Your task to perform on an android device: What is the speed of a skateboard? Image 0: 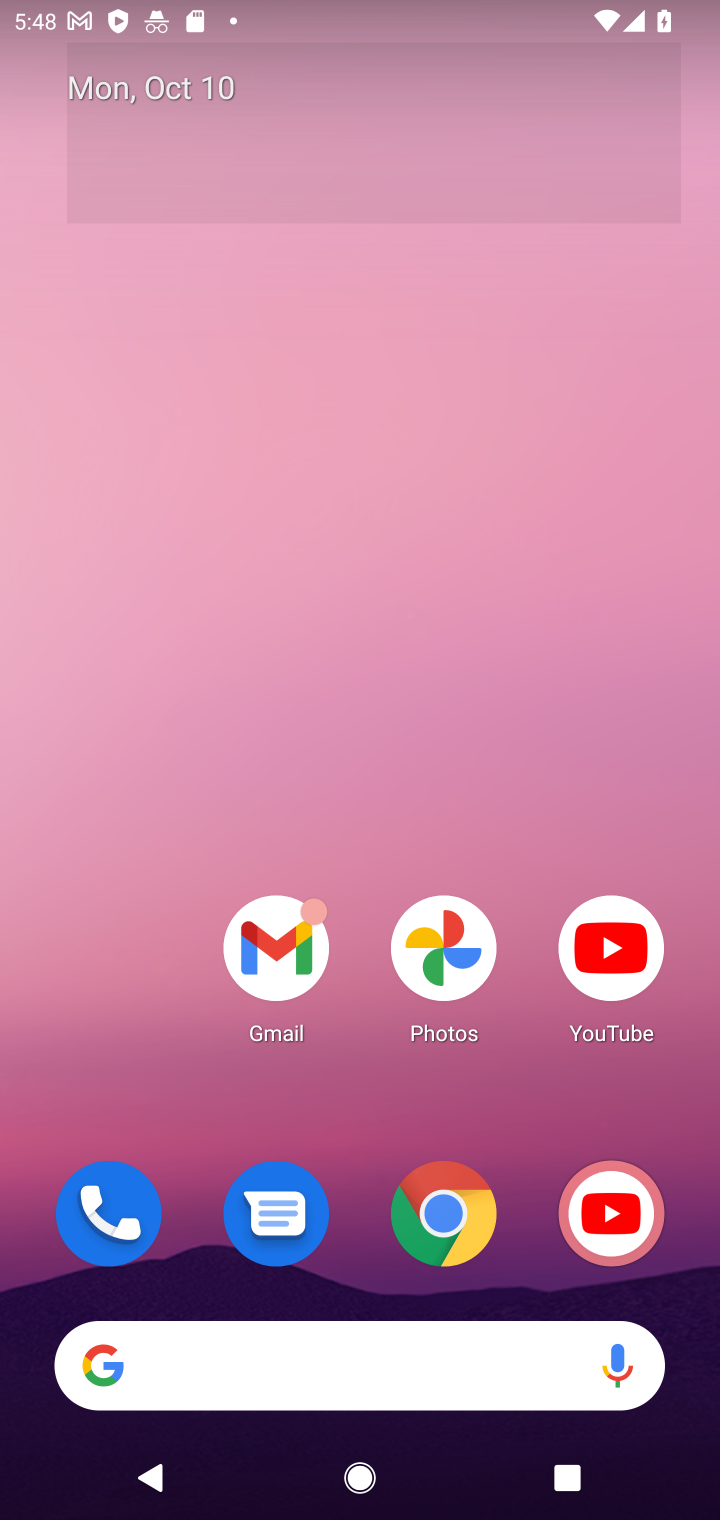
Step 0: drag from (194, 1282) to (301, 108)
Your task to perform on an android device: What is the speed of a skateboard? Image 1: 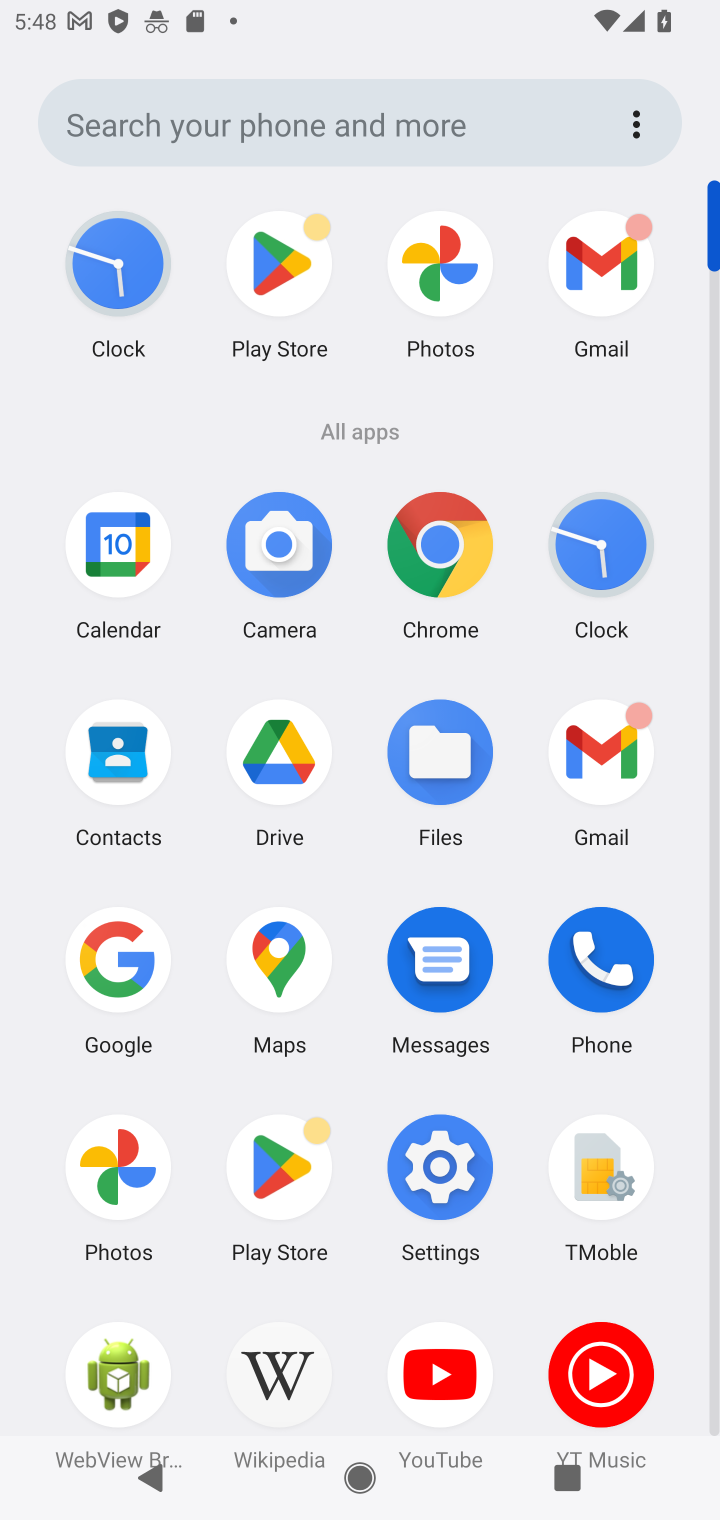
Step 1: click (115, 988)
Your task to perform on an android device: What is the speed of a skateboard? Image 2: 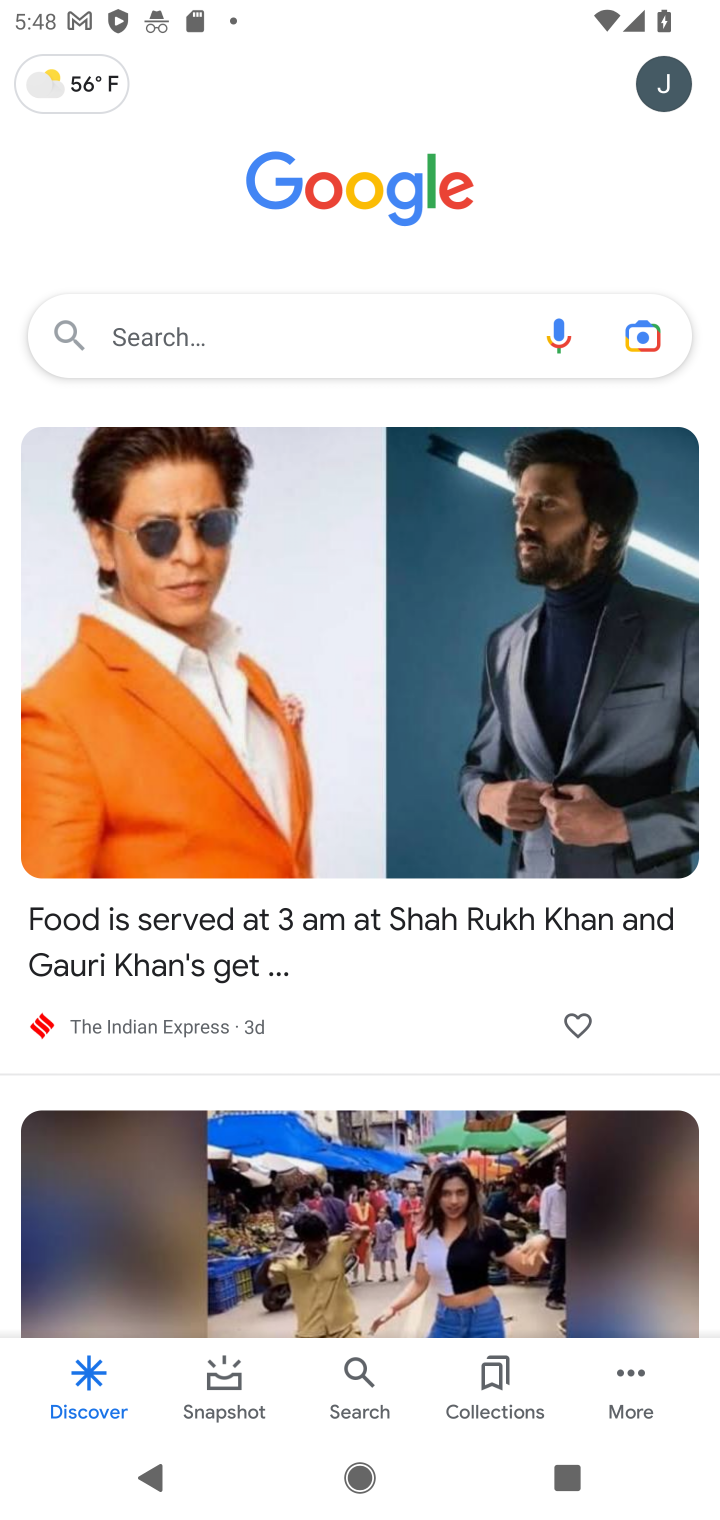
Step 2: click (271, 308)
Your task to perform on an android device: What is the speed of a skateboard? Image 3: 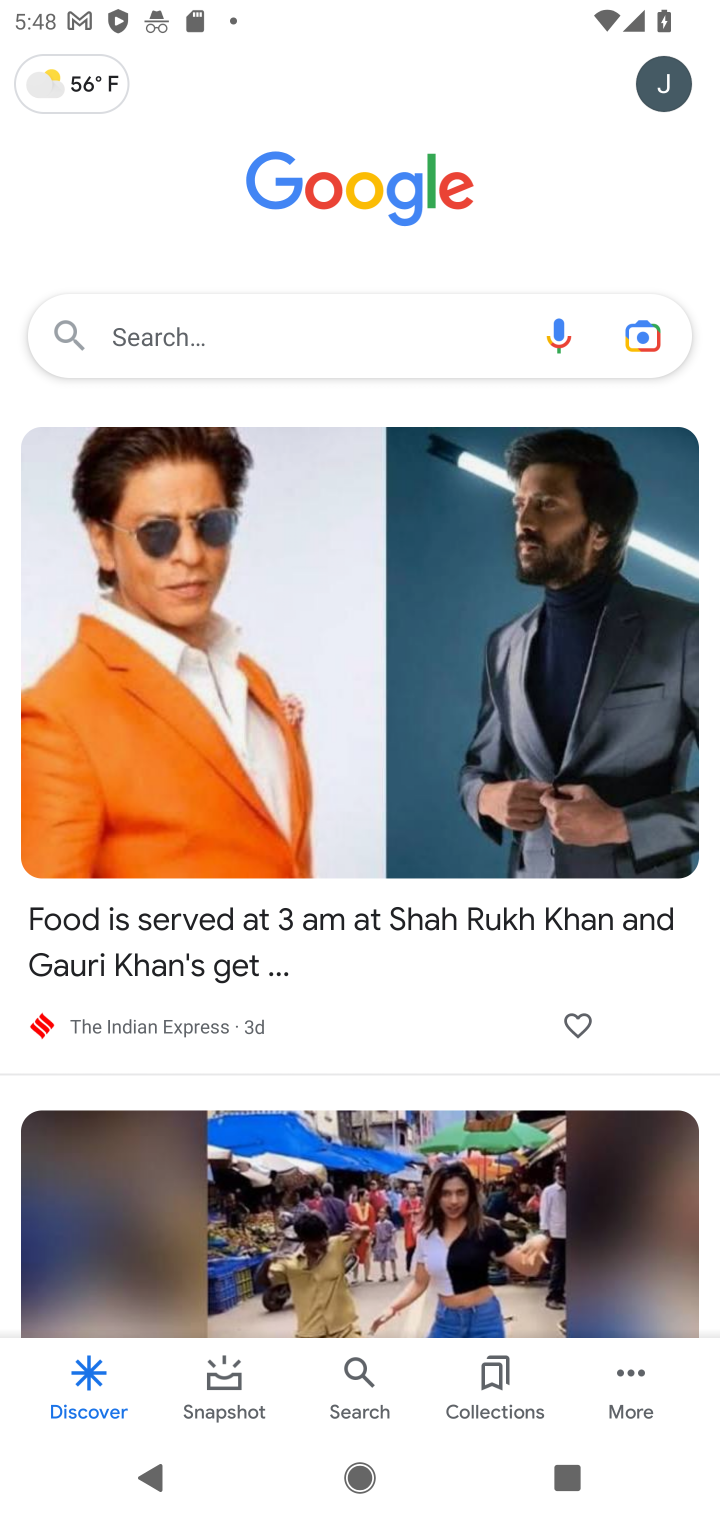
Step 3: type "What is the speed of a skateboard?"
Your task to perform on an android device: What is the speed of a skateboard? Image 4: 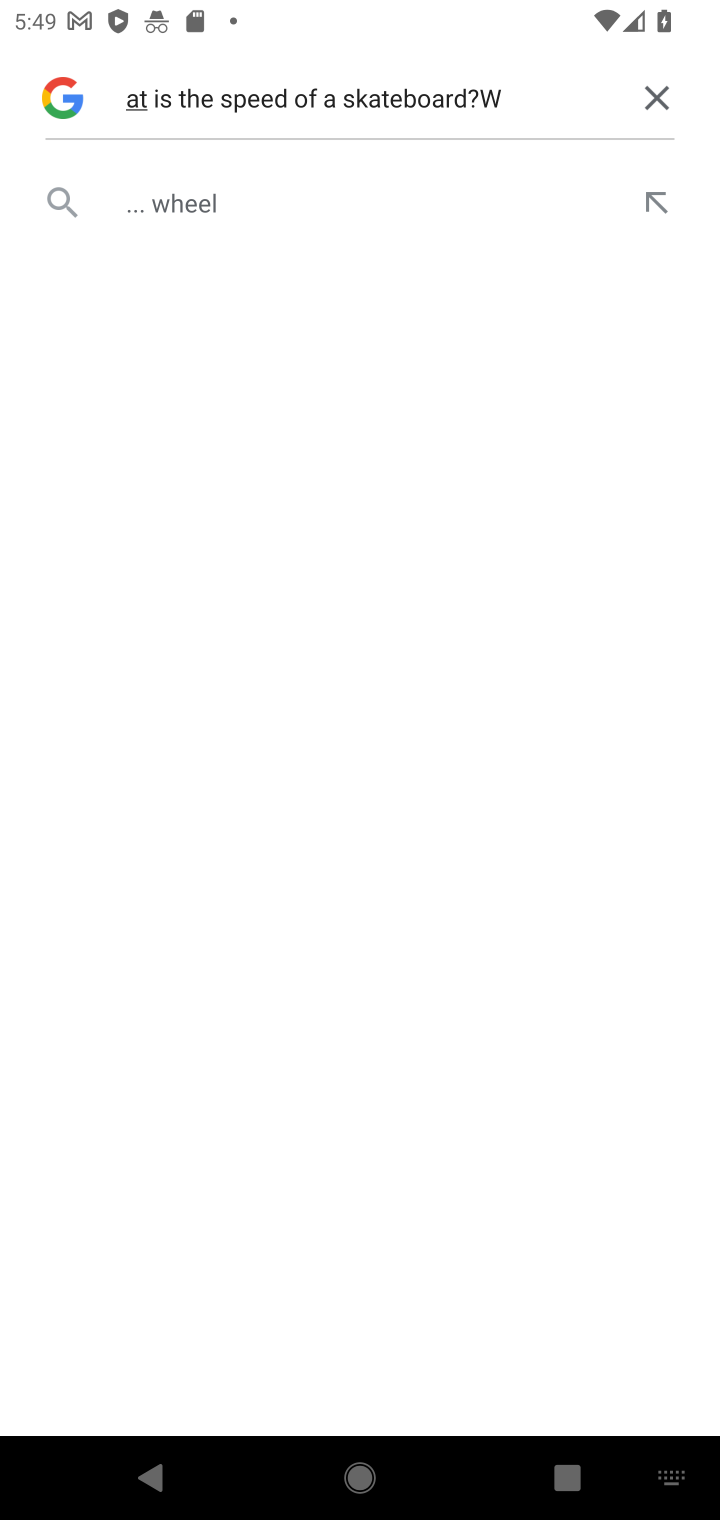
Step 4: click (672, 87)
Your task to perform on an android device: What is the speed of a skateboard? Image 5: 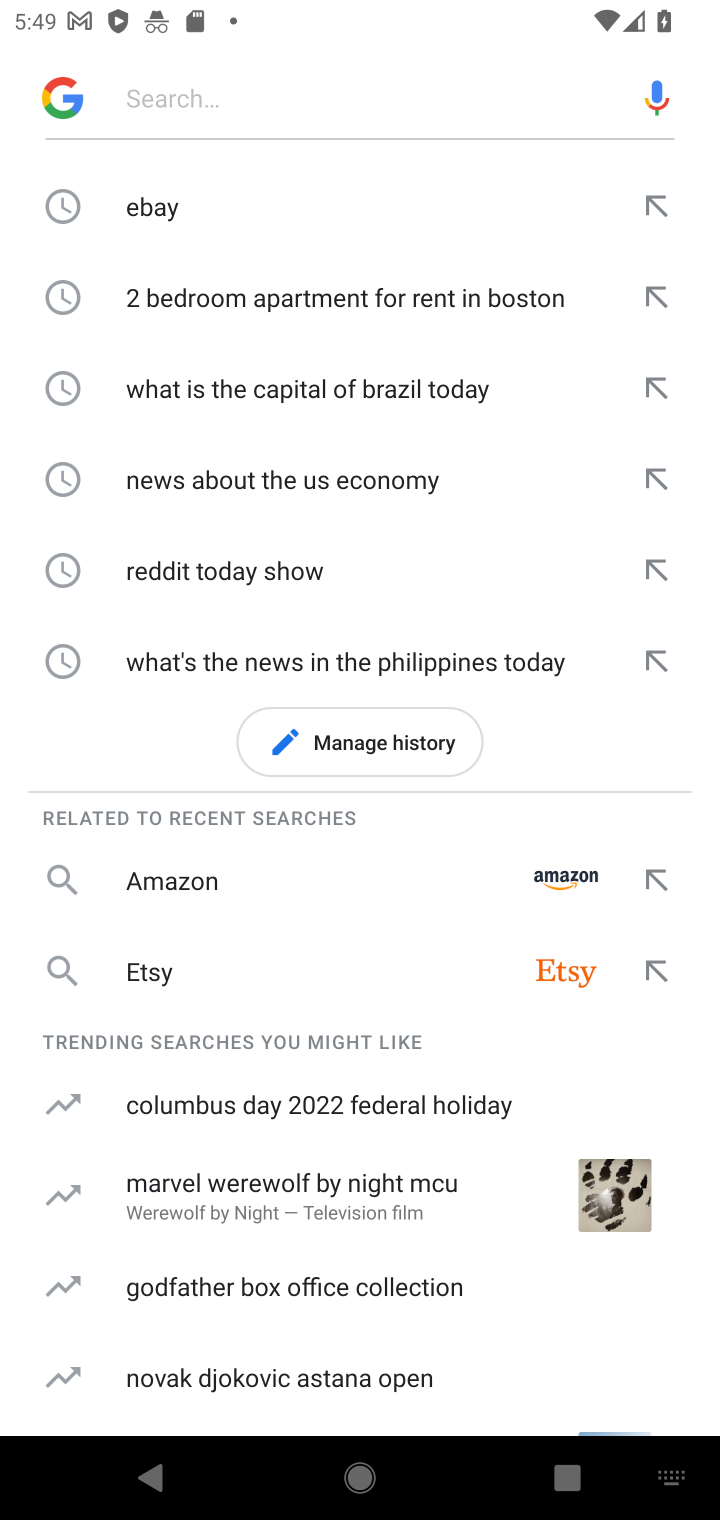
Step 5: click (199, 102)
Your task to perform on an android device: What is the speed of a skateboard? Image 6: 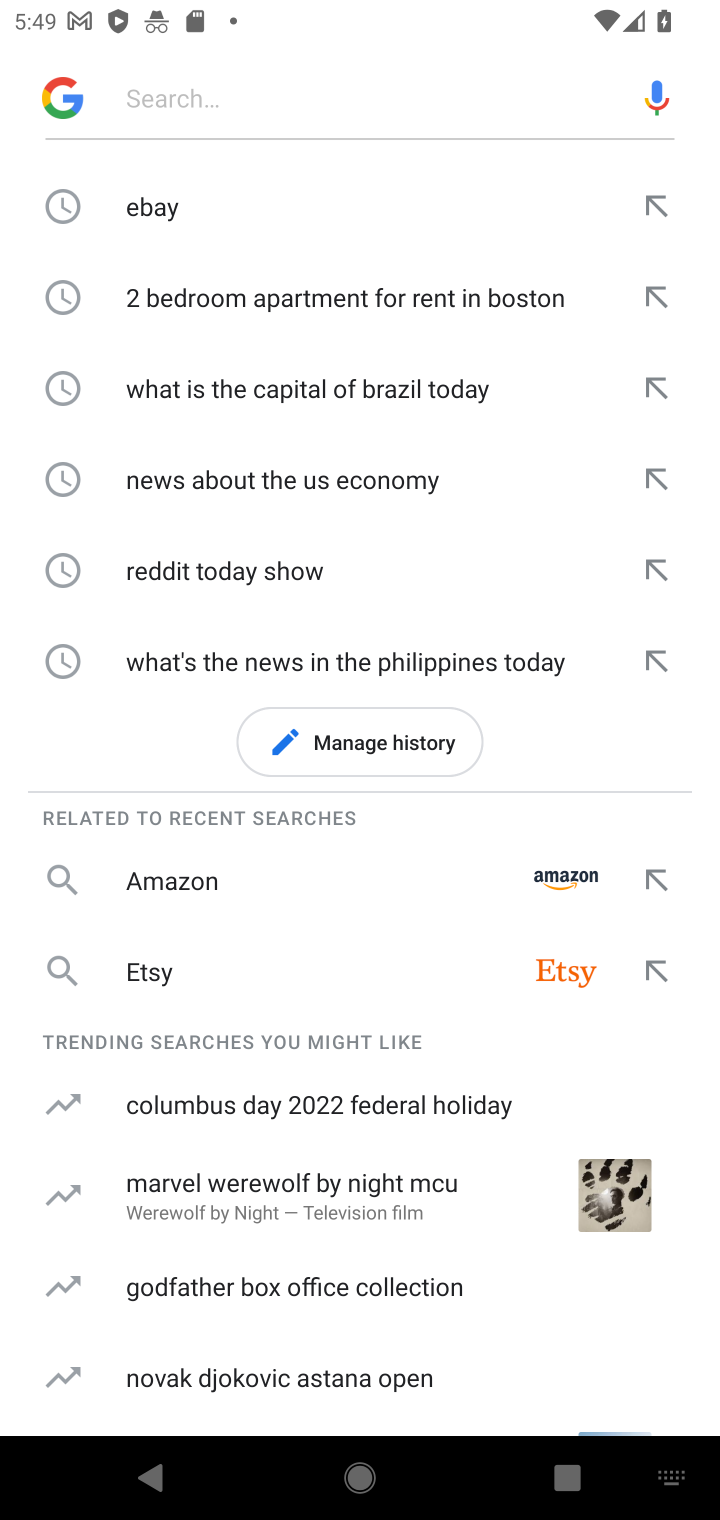
Step 6: type "What is the speed of a skateboard?"
Your task to perform on an android device: What is the speed of a skateboard? Image 7: 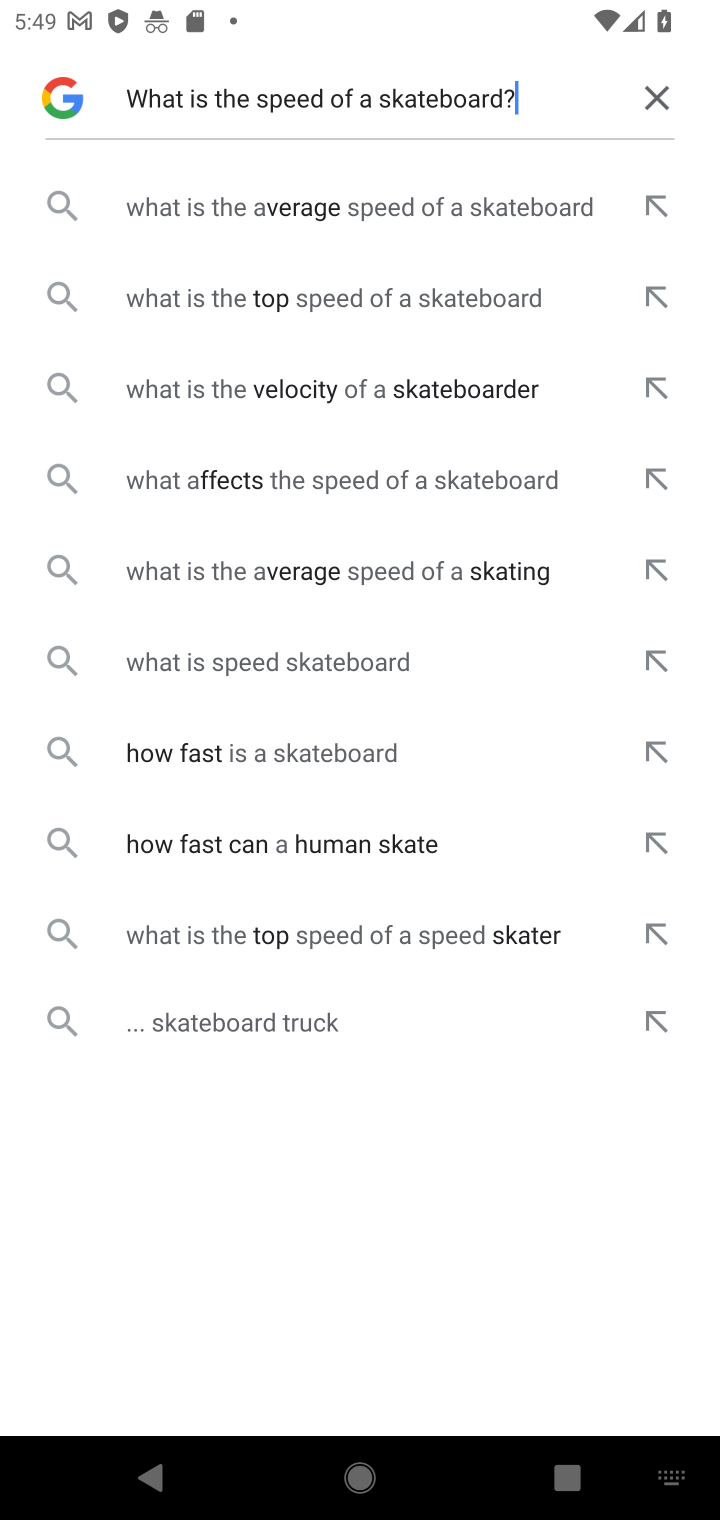
Step 7: click (333, 212)
Your task to perform on an android device: What is the speed of a skateboard? Image 8: 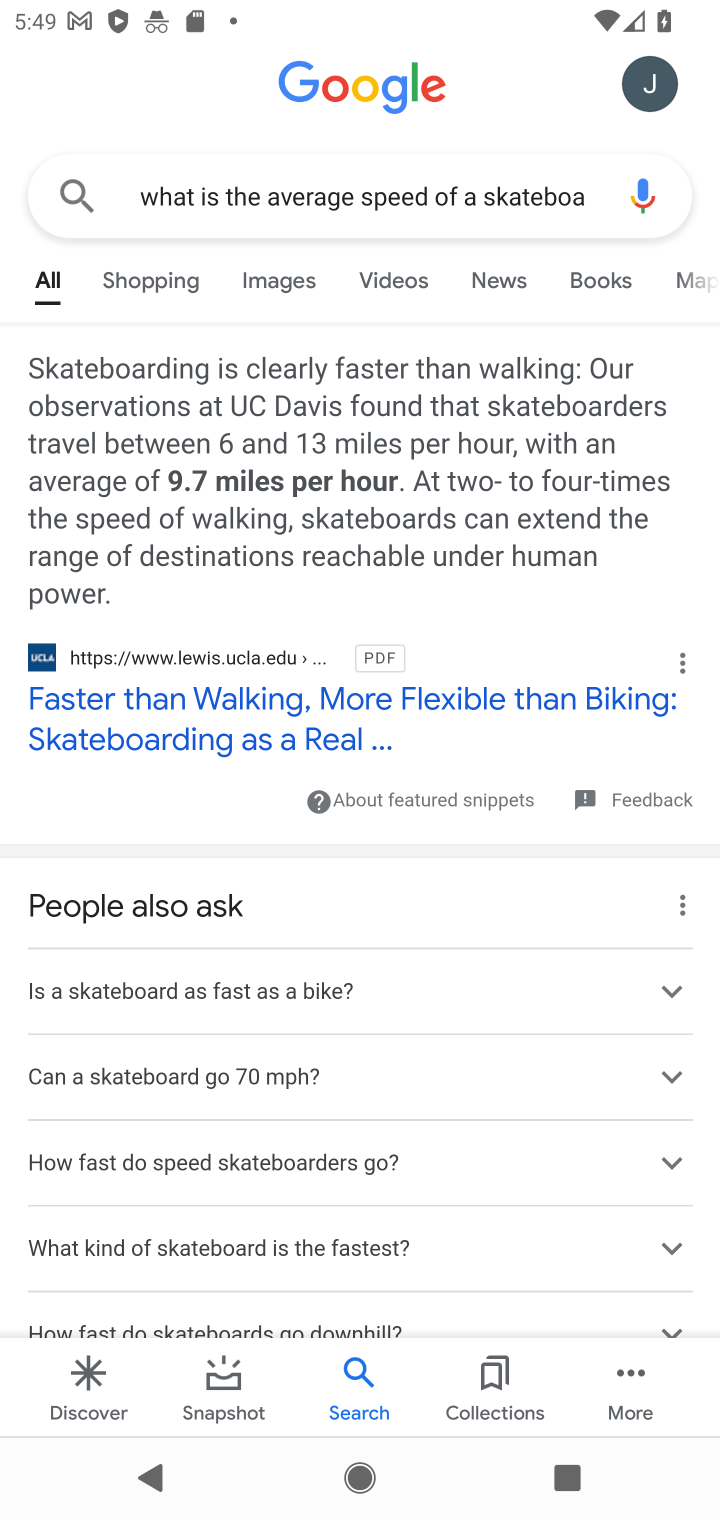
Step 8: task complete